Your task to perform on an android device: Go to Google Image 0: 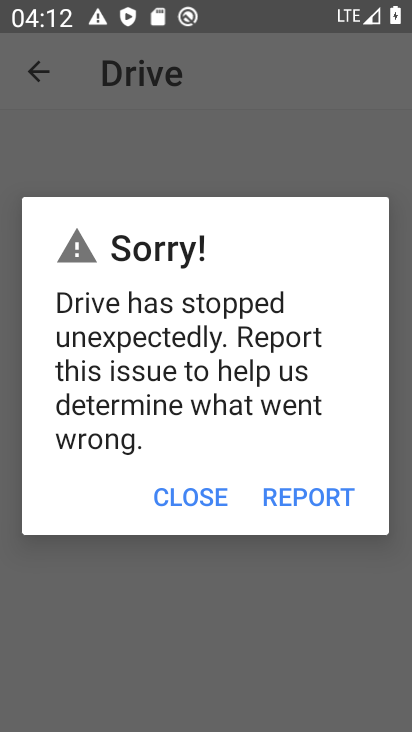
Step 0: click (197, 493)
Your task to perform on an android device: Go to Google Image 1: 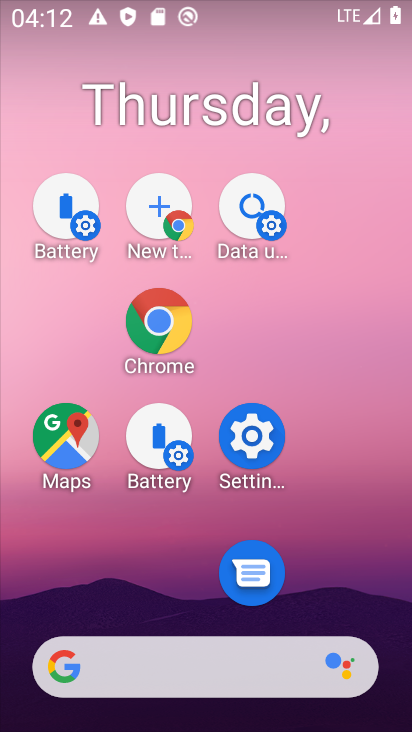
Step 1: drag from (203, 721) to (138, 77)
Your task to perform on an android device: Go to Google Image 2: 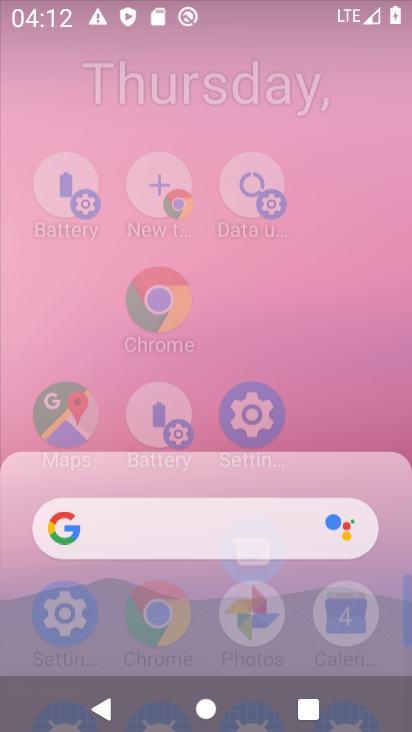
Step 2: drag from (155, 562) to (171, 167)
Your task to perform on an android device: Go to Google Image 3: 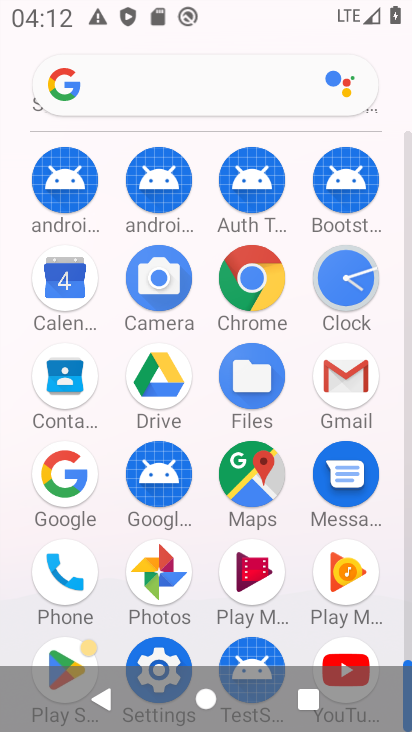
Step 3: drag from (211, 514) to (211, 138)
Your task to perform on an android device: Go to Google Image 4: 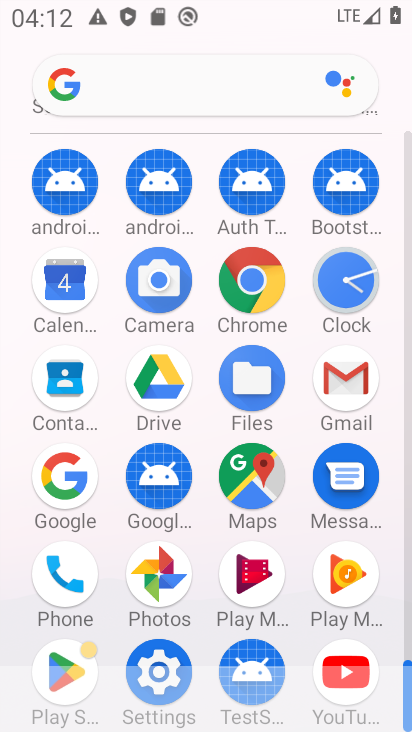
Step 4: click (61, 476)
Your task to perform on an android device: Go to Google Image 5: 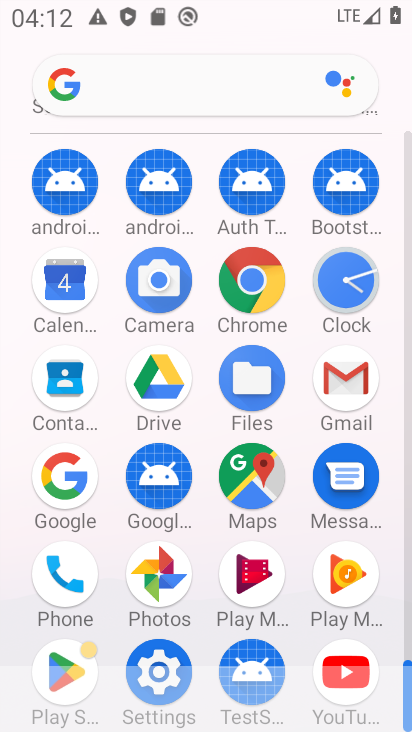
Step 5: click (61, 476)
Your task to perform on an android device: Go to Google Image 6: 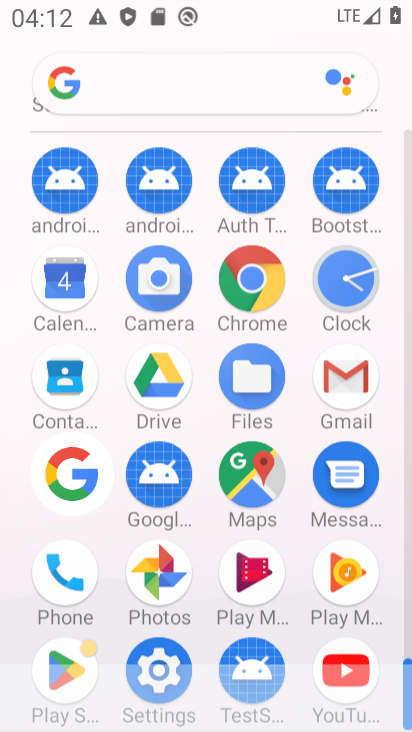
Step 6: click (61, 476)
Your task to perform on an android device: Go to Google Image 7: 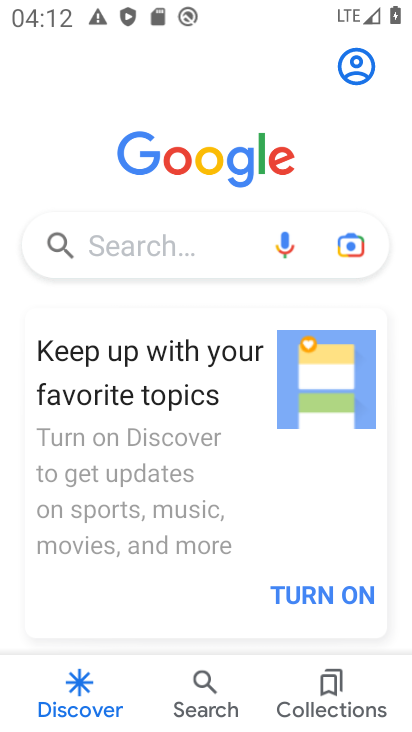
Step 7: task complete